Your task to perform on an android device: Go to sound settings Image 0: 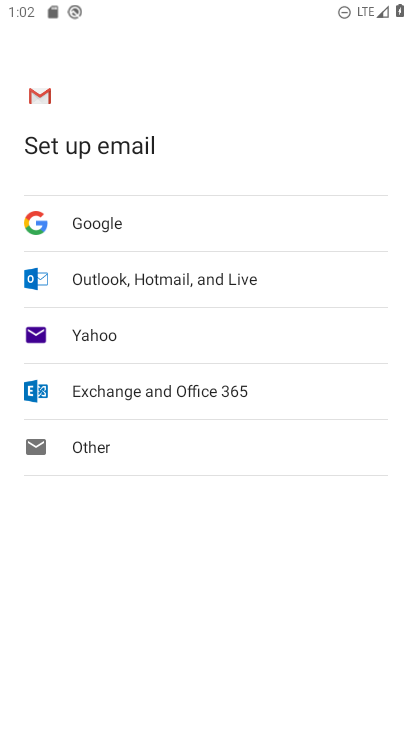
Step 0: press home button
Your task to perform on an android device: Go to sound settings Image 1: 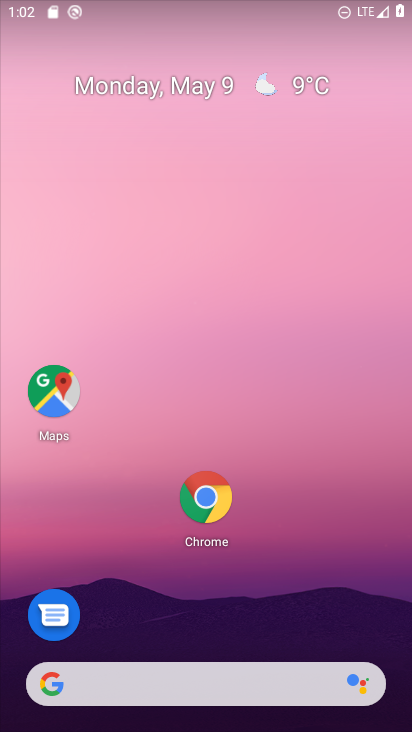
Step 1: drag from (351, 540) to (258, 94)
Your task to perform on an android device: Go to sound settings Image 2: 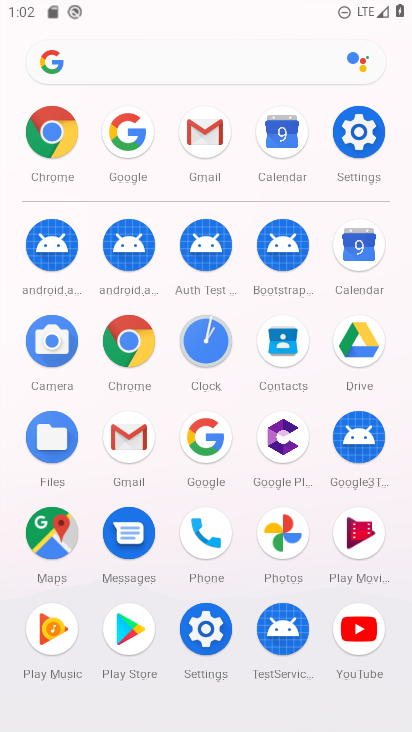
Step 2: click (351, 126)
Your task to perform on an android device: Go to sound settings Image 3: 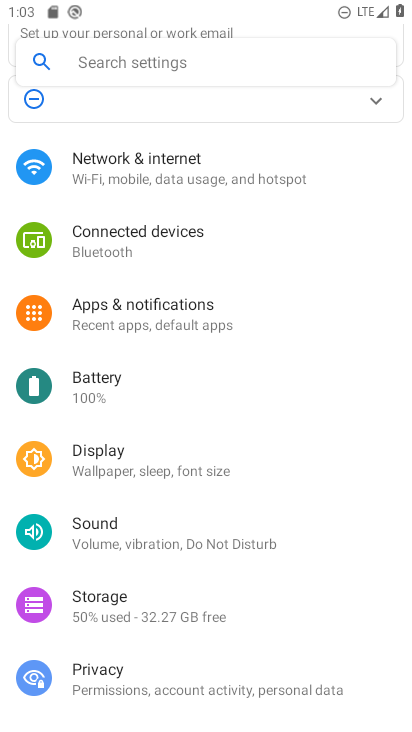
Step 3: click (158, 541)
Your task to perform on an android device: Go to sound settings Image 4: 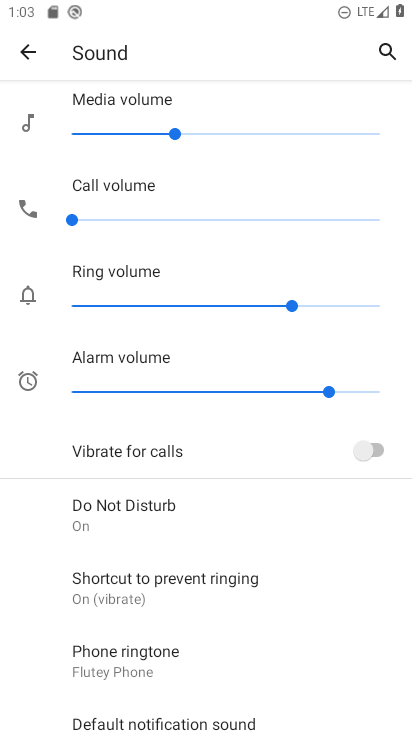
Step 4: task complete